Your task to perform on an android device: turn on the 24-hour format for clock Image 0: 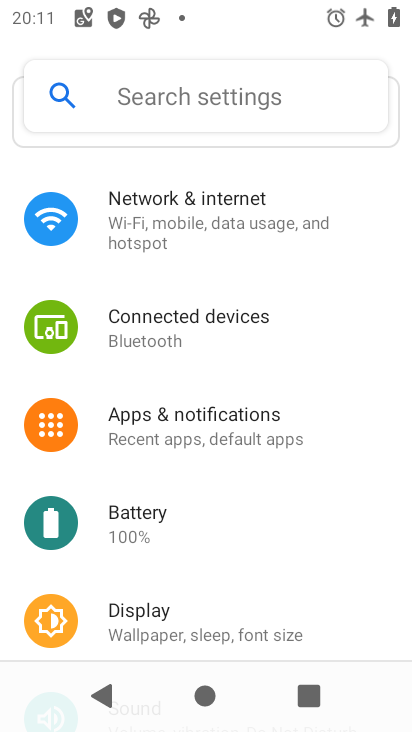
Step 0: press home button
Your task to perform on an android device: turn on the 24-hour format for clock Image 1: 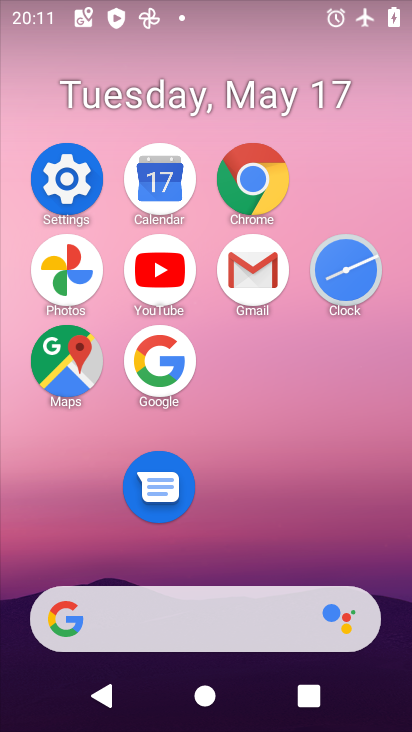
Step 1: click (368, 260)
Your task to perform on an android device: turn on the 24-hour format for clock Image 2: 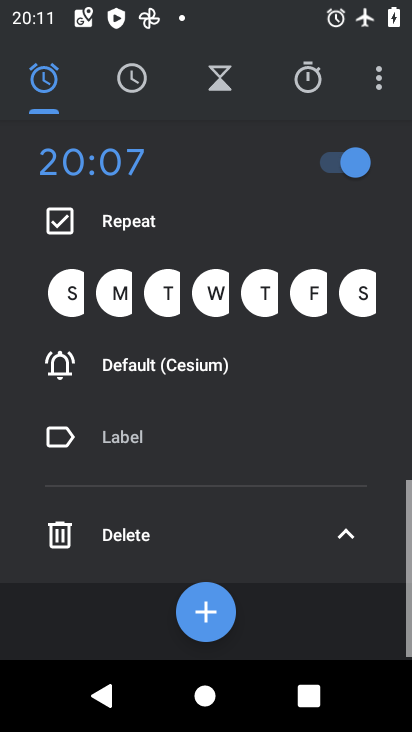
Step 2: click (389, 71)
Your task to perform on an android device: turn on the 24-hour format for clock Image 3: 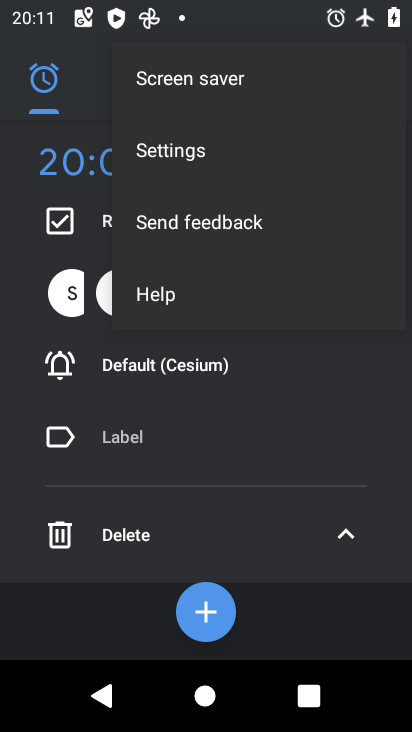
Step 3: click (194, 160)
Your task to perform on an android device: turn on the 24-hour format for clock Image 4: 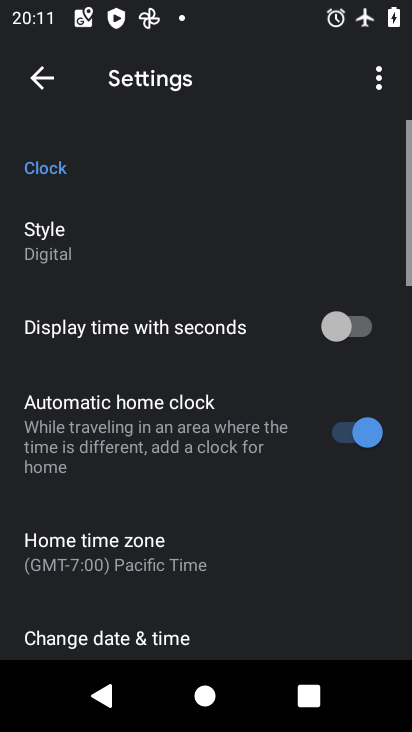
Step 4: drag from (151, 409) to (184, 178)
Your task to perform on an android device: turn on the 24-hour format for clock Image 5: 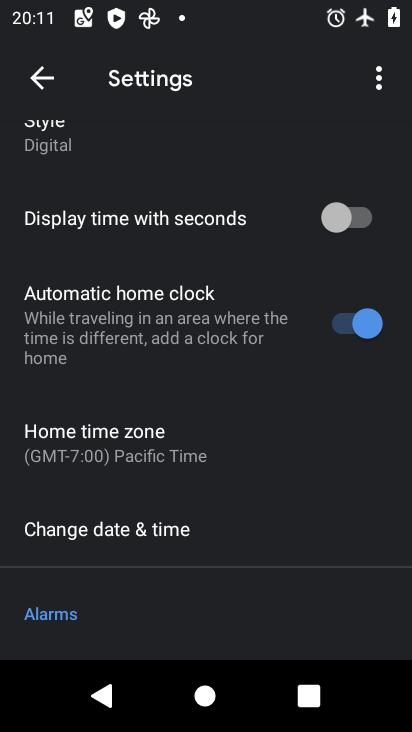
Step 5: click (114, 535)
Your task to perform on an android device: turn on the 24-hour format for clock Image 6: 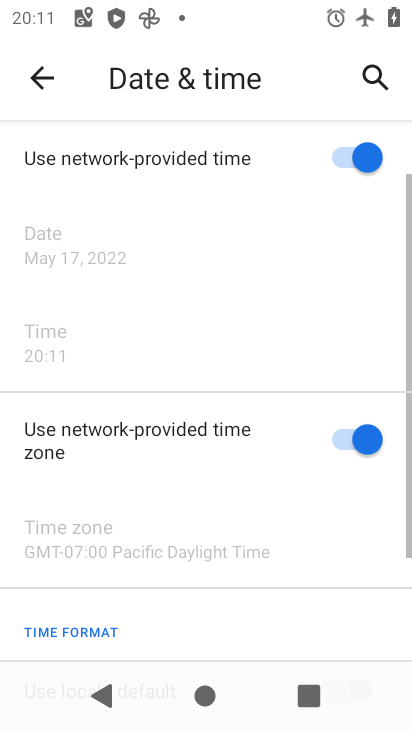
Step 6: task complete